Your task to perform on an android device: Open Android settings Image 0: 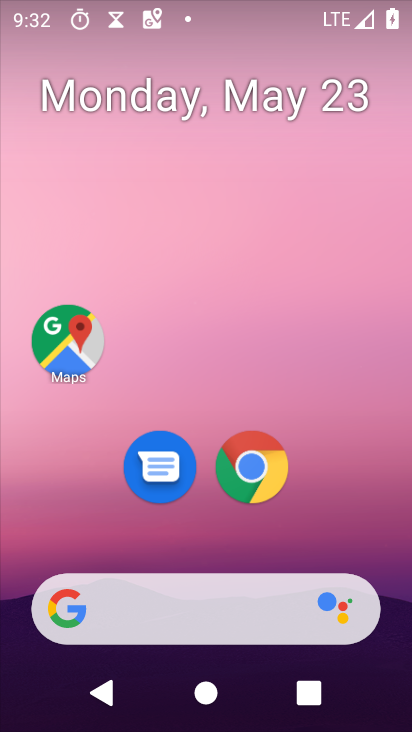
Step 0: drag from (348, 546) to (227, 1)
Your task to perform on an android device: Open Android settings Image 1: 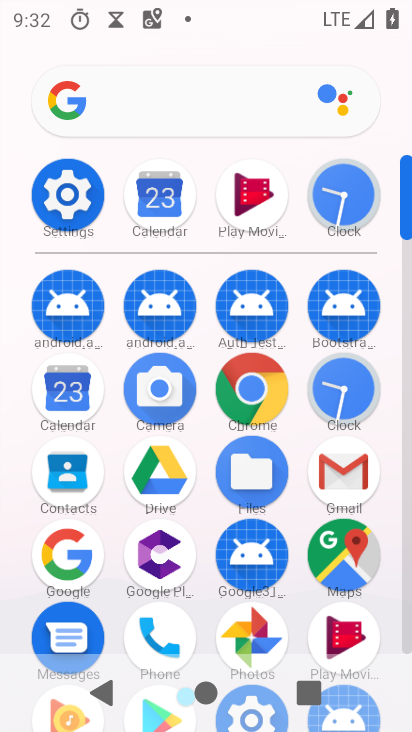
Step 1: click (81, 206)
Your task to perform on an android device: Open Android settings Image 2: 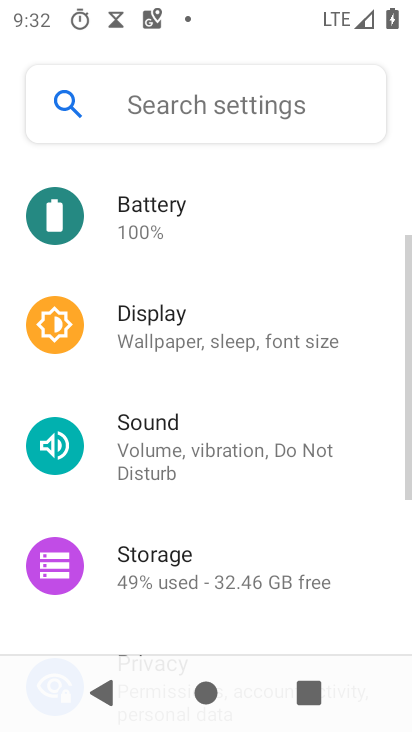
Step 2: drag from (250, 599) to (265, 37)
Your task to perform on an android device: Open Android settings Image 3: 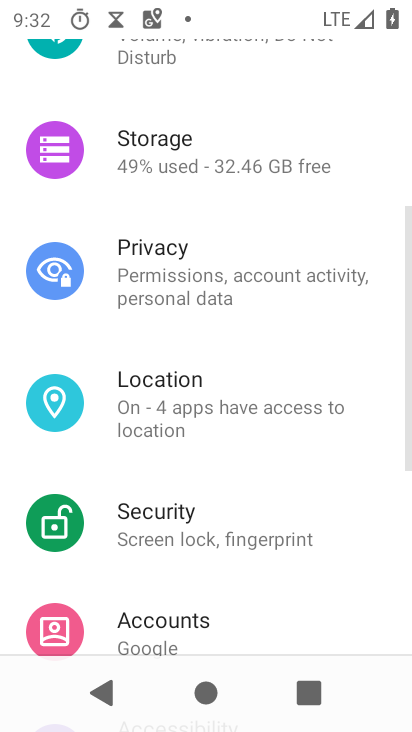
Step 3: drag from (251, 586) to (242, 24)
Your task to perform on an android device: Open Android settings Image 4: 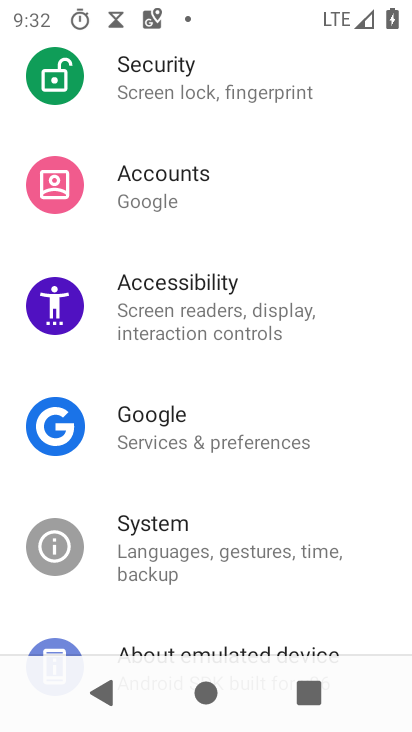
Step 4: drag from (243, 596) to (258, 38)
Your task to perform on an android device: Open Android settings Image 5: 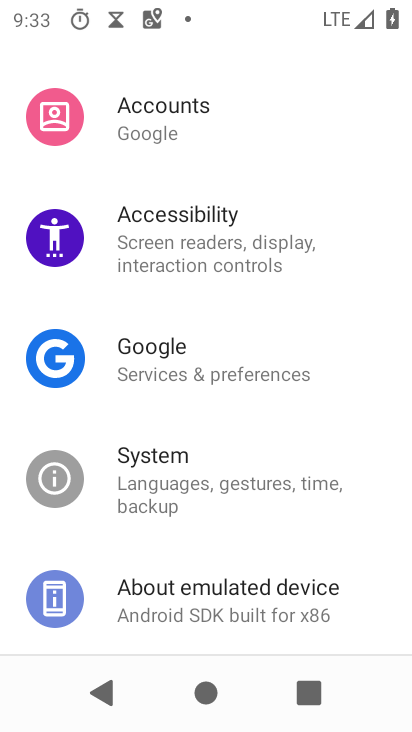
Step 5: click (252, 604)
Your task to perform on an android device: Open Android settings Image 6: 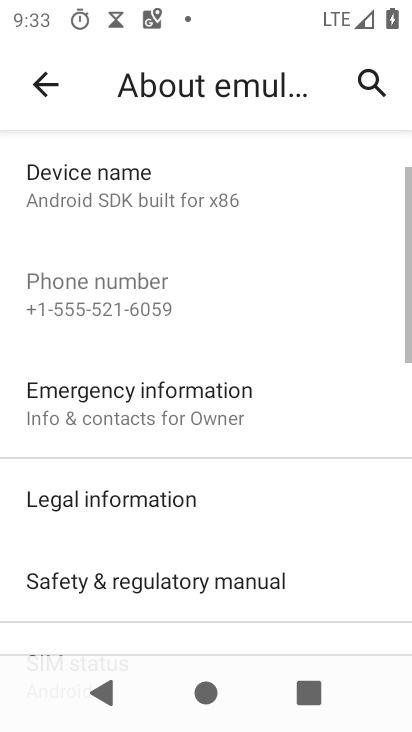
Step 6: drag from (254, 550) to (253, 121)
Your task to perform on an android device: Open Android settings Image 7: 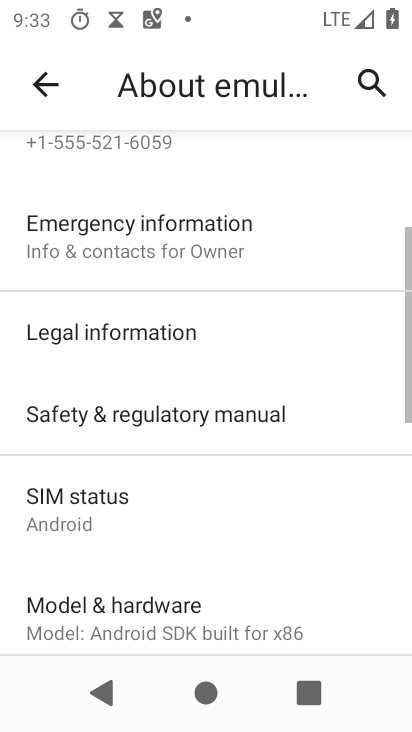
Step 7: drag from (195, 525) to (206, 232)
Your task to perform on an android device: Open Android settings Image 8: 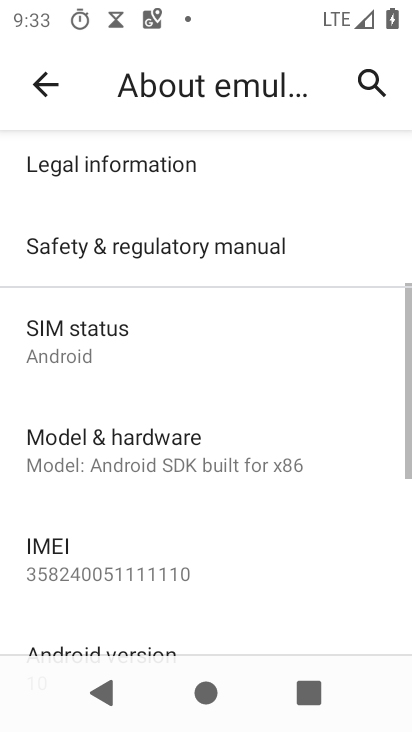
Step 8: click (173, 647)
Your task to perform on an android device: Open Android settings Image 9: 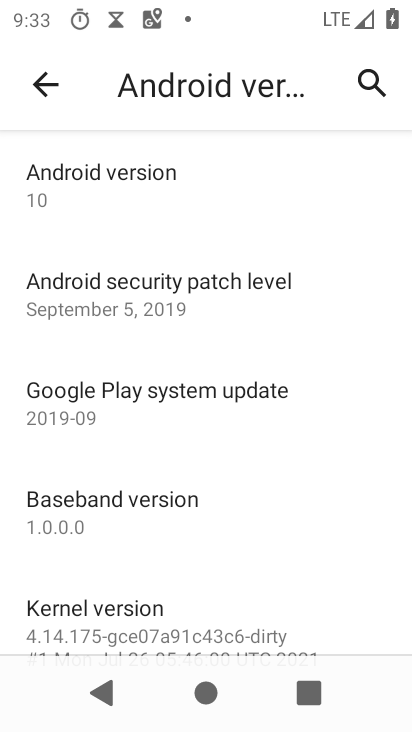
Step 9: task complete